Your task to perform on an android device: Open network settings Image 0: 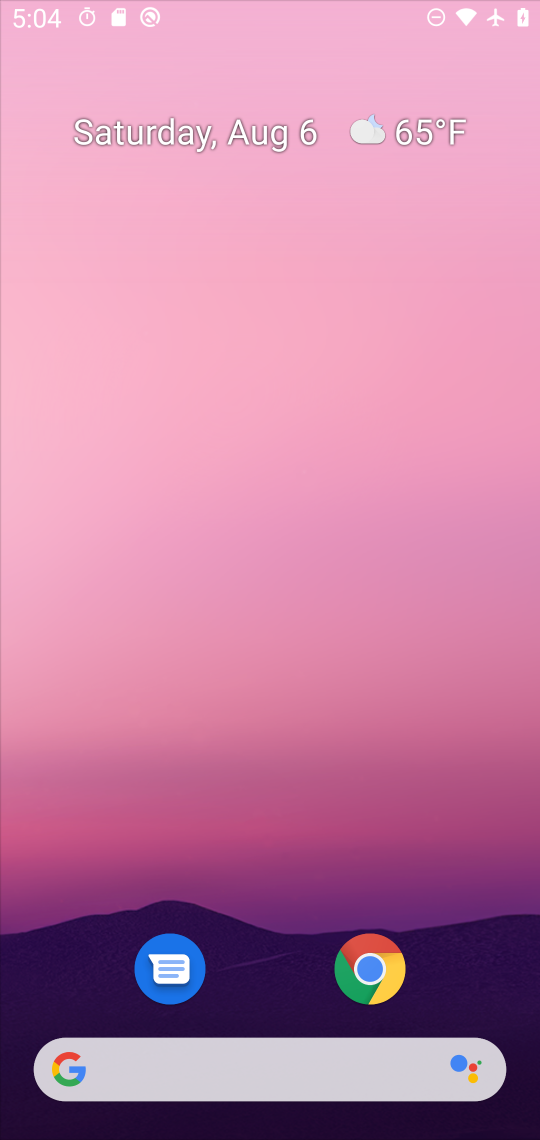
Step 0: press home button
Your task to perform on an android device: Open network settings Image 1: 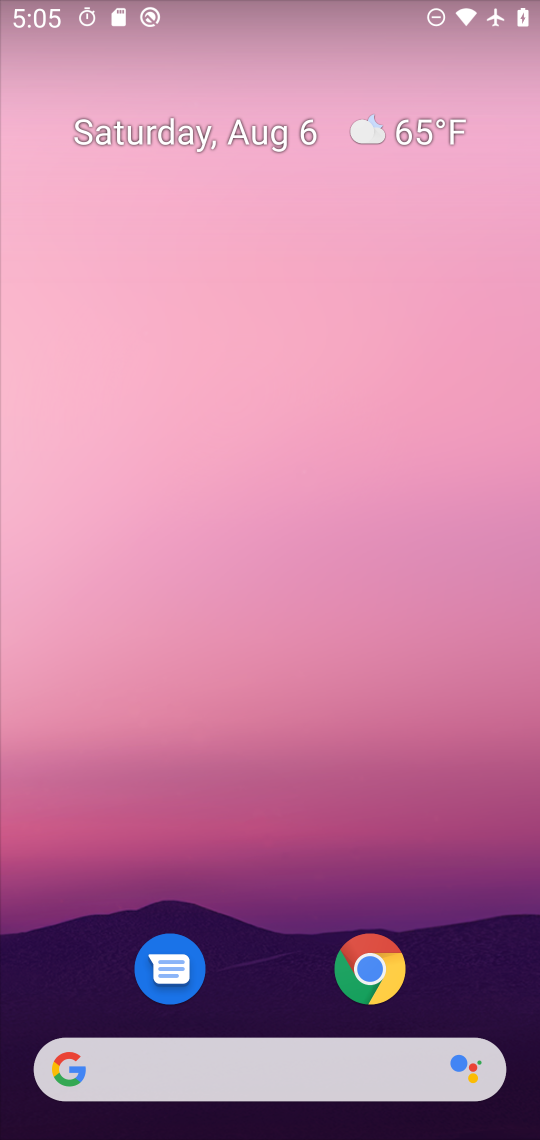
Step 1: drag from (306, 976) to (360, 126)
Your task to perform on an android device: Open network settings Image 2: 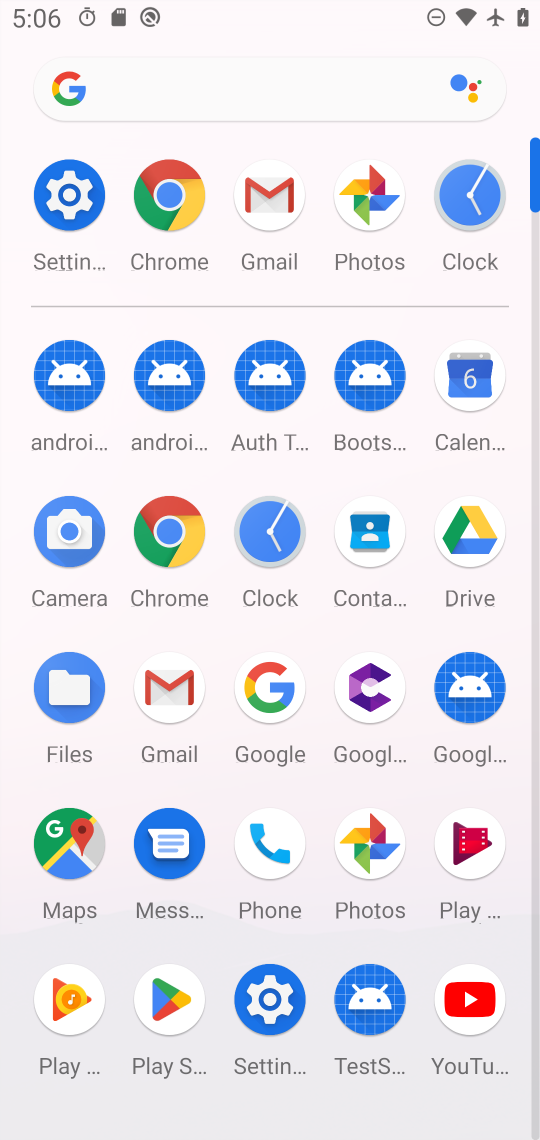
Step 2: click (68, 206)
Your task to perform on an android device: Open network settings Image 3: 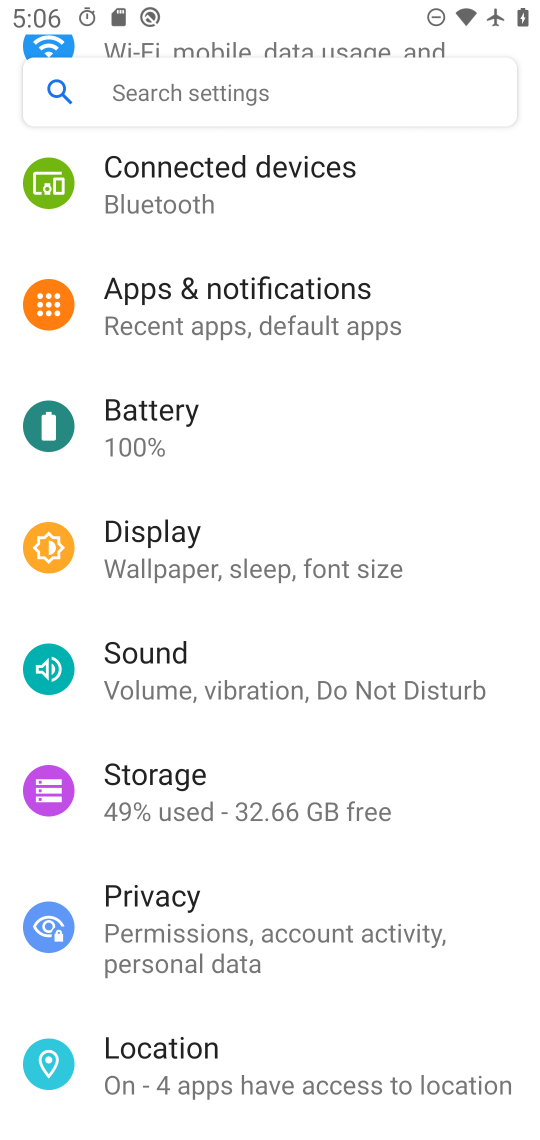
Step 3: drag from (429, 236) to (425, 930)
Your task to perform on an android device: Open network settings Image 4: 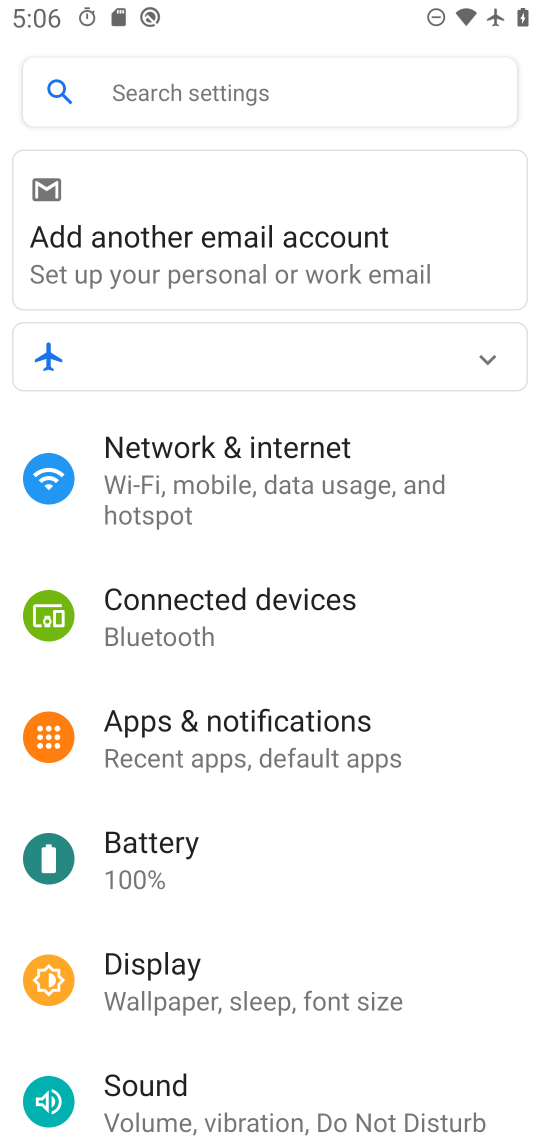
Step 4: click (217, 461)
Your task to perform on an android device: Open network settings Image 5: 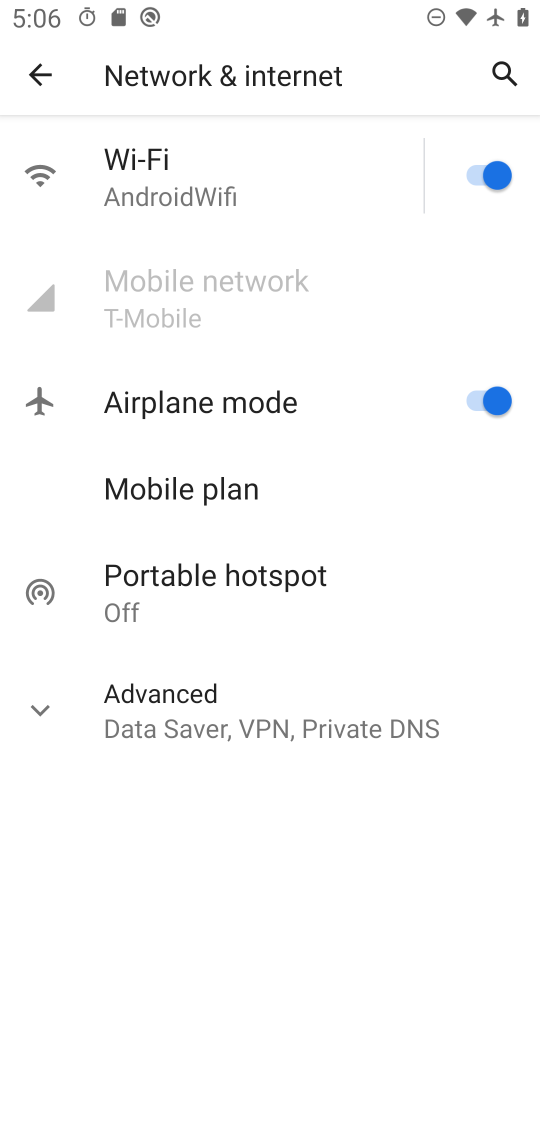
Step 5: task complete